Your task to perform on an android device: Add razer blade to the cart on target.com Image 0: 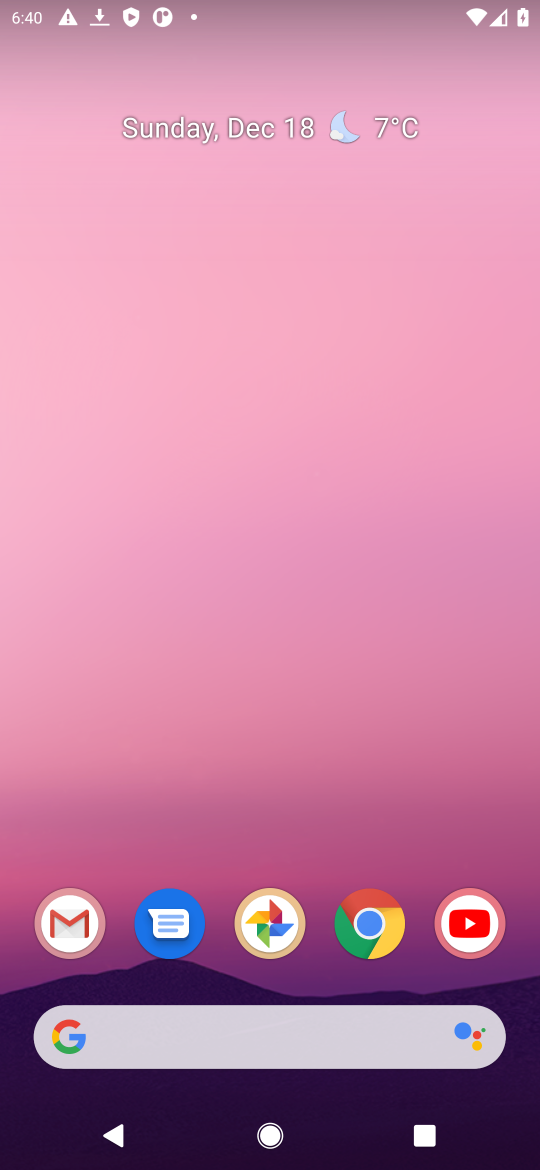
Step 0: press home button
Your task to perform on an android device: Add razer blade to the cart on target.com Image 1: 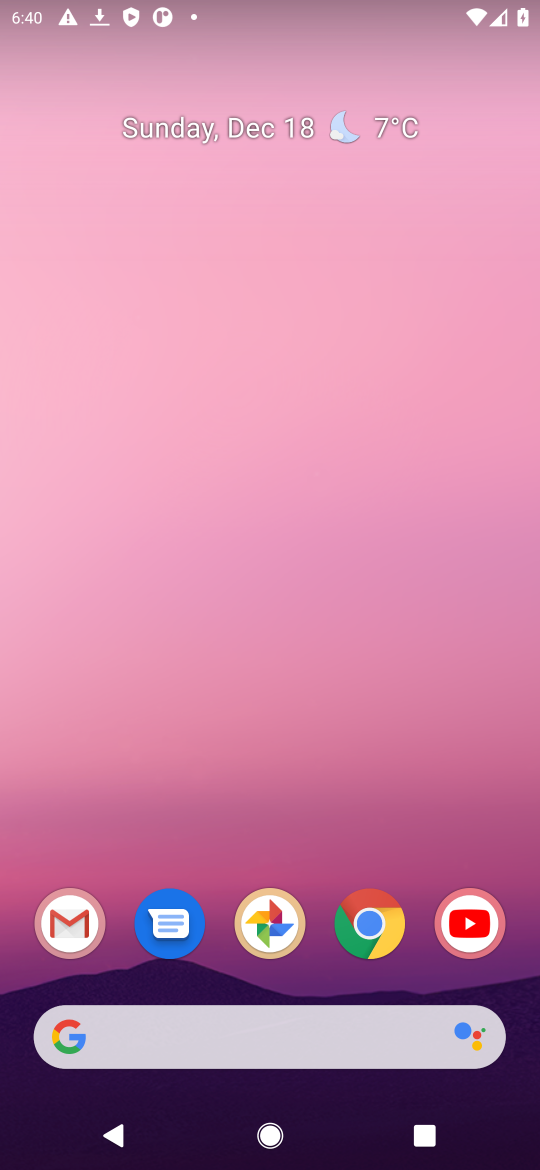
Step 1: click (112, 1028)
Your task to perform on an android device: Add razer blade to the cart on target.com Image 2: 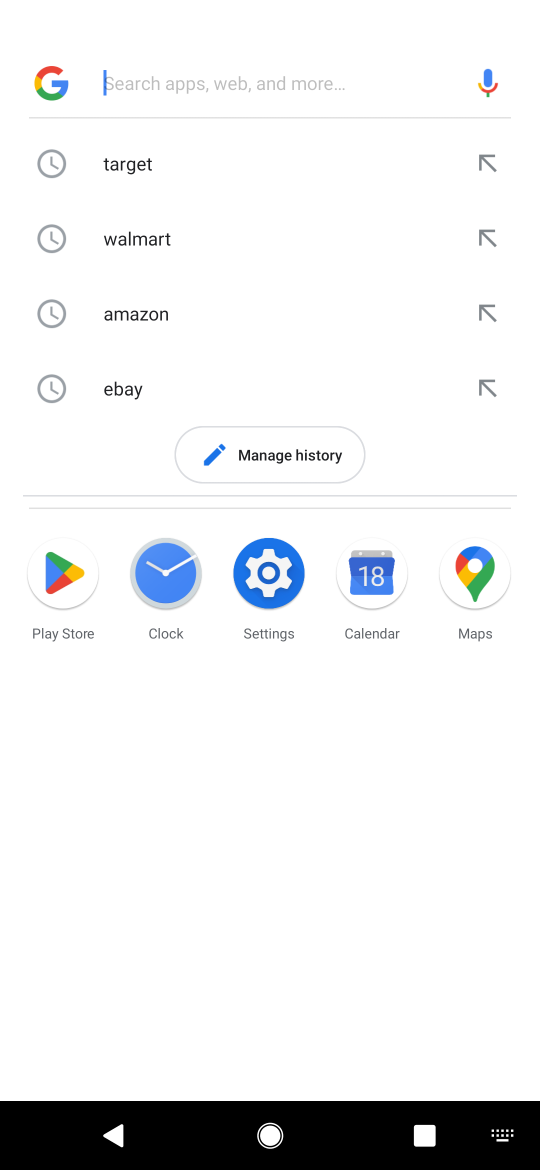
Step 2: press enter
Your task to perform on an android device: Add razer blade to the cart on target.com Image 3: 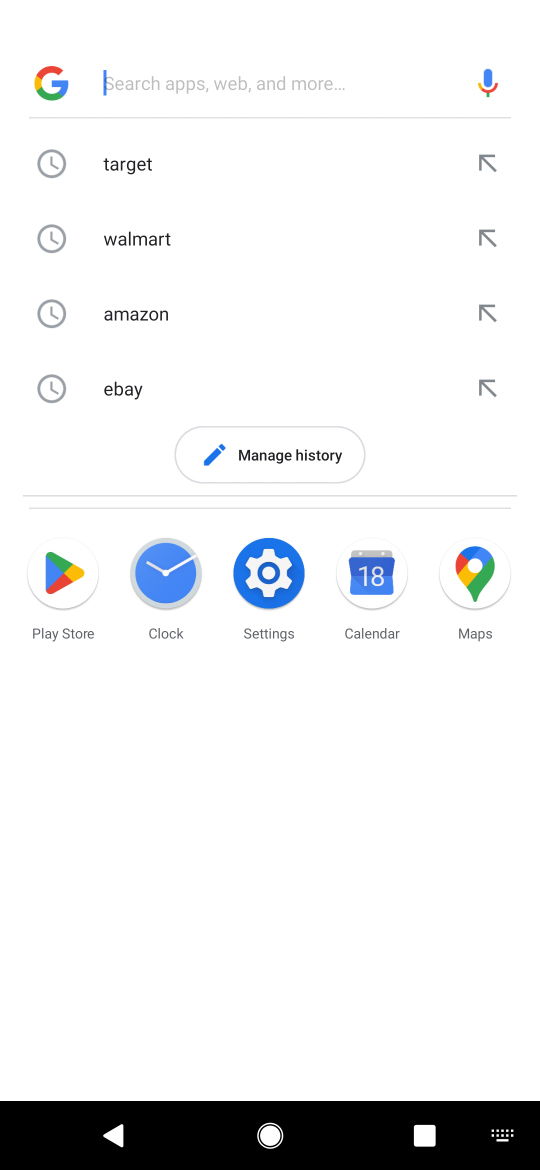
Step 3: type "target.com"
Your task to perform on an android device: Add razer blade to the cart on target.com Image 4: 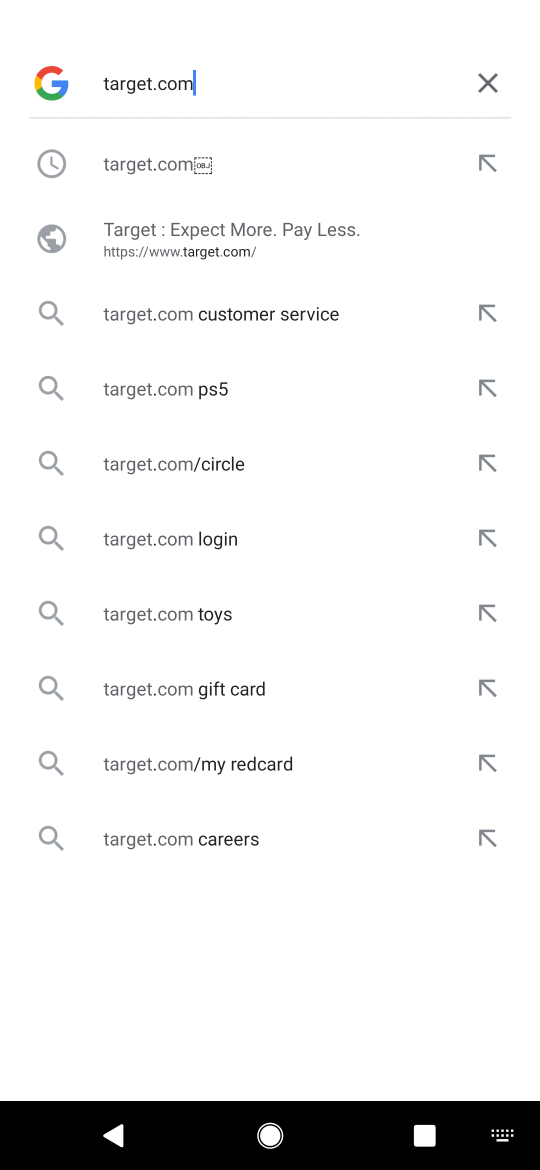
Step 4: press enter
Your task to perform on an android device: Add razer blade to the cart on target.com Image 5: 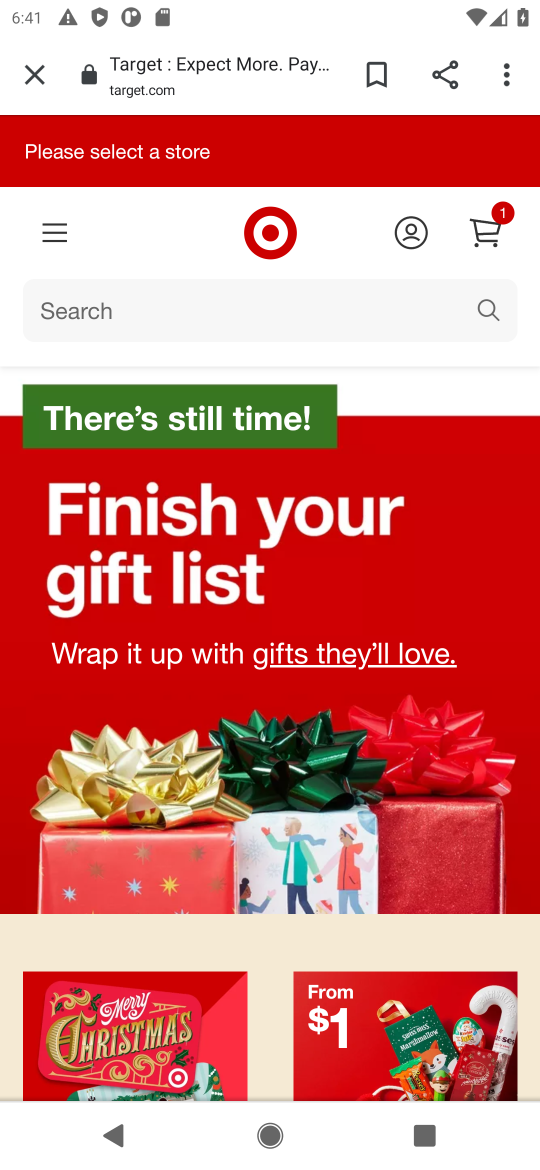
Step 5: click (125, 298)
Your task to perform on an android device: Add razer blade to the cart on target.com Image 6: 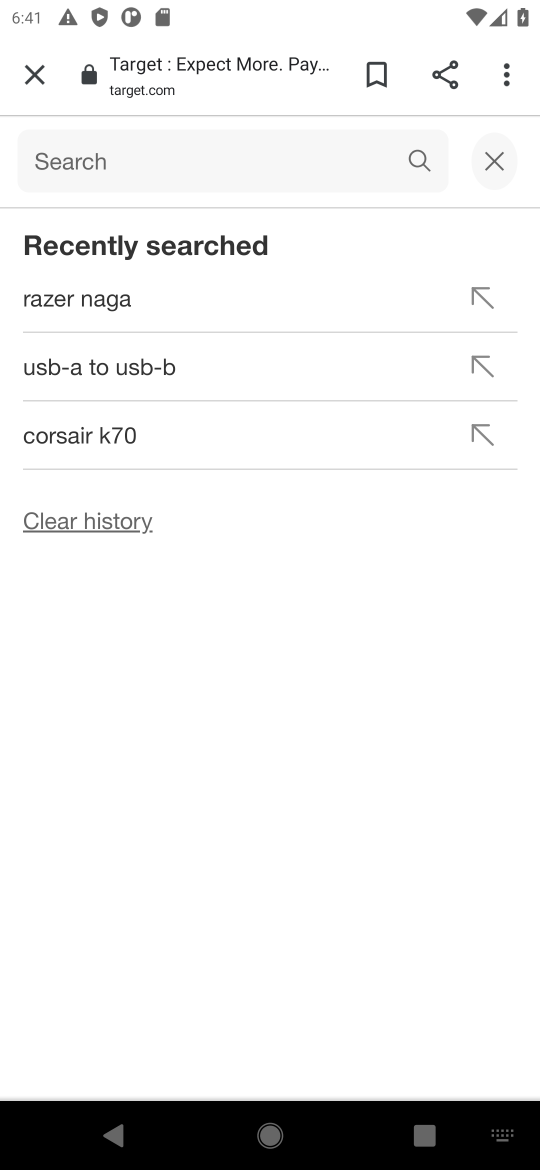
Step 6: type "razer blade"
Your task to perform on an android device: Add razer blade to the cart on target.com Image 7: 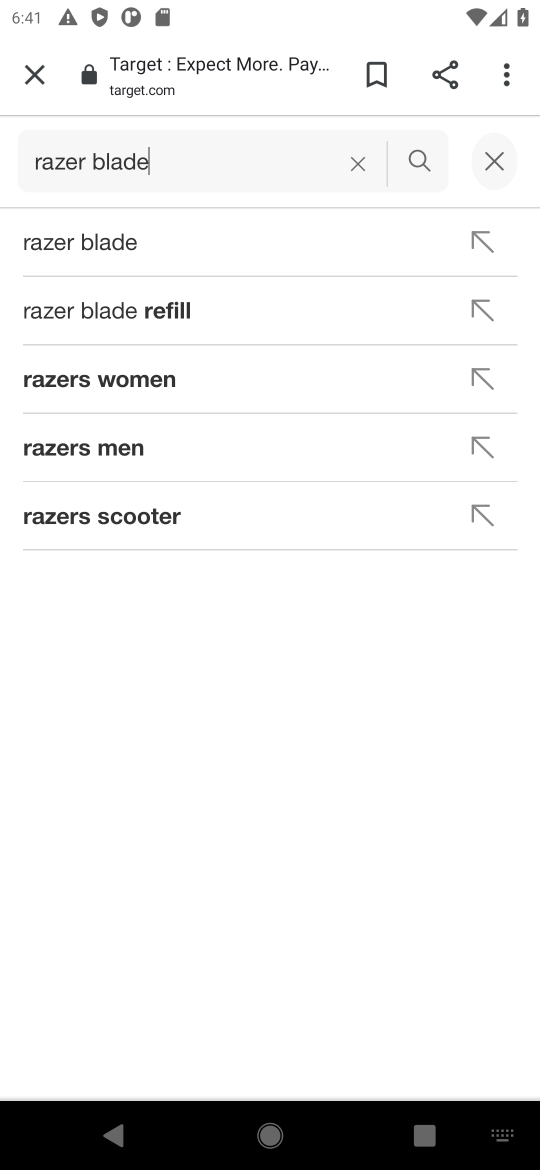
Step 7: press enter
Your task to perform on an android device: Add razer blade to the cart on target.com Image 8: 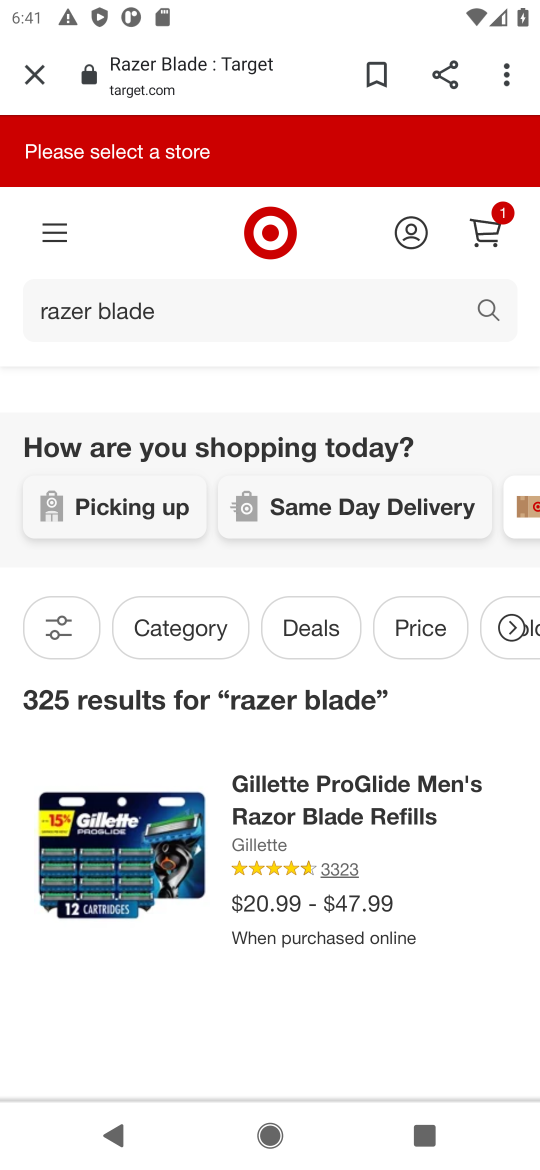
Step 8: drag from (294, 949) to (392, 628)
Your task to perform on an android device: Add razer blade to the cart on target.com Image 9: 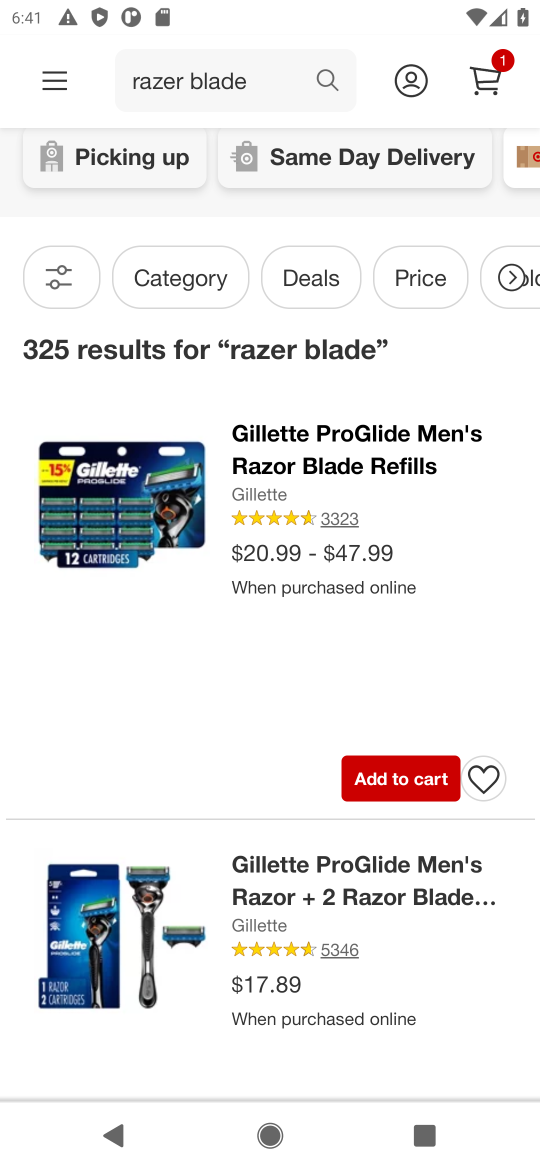
Step 9: click (368, 776)
Your task to perform on an android device: Add razer blade to the cart on target.com Image 10: 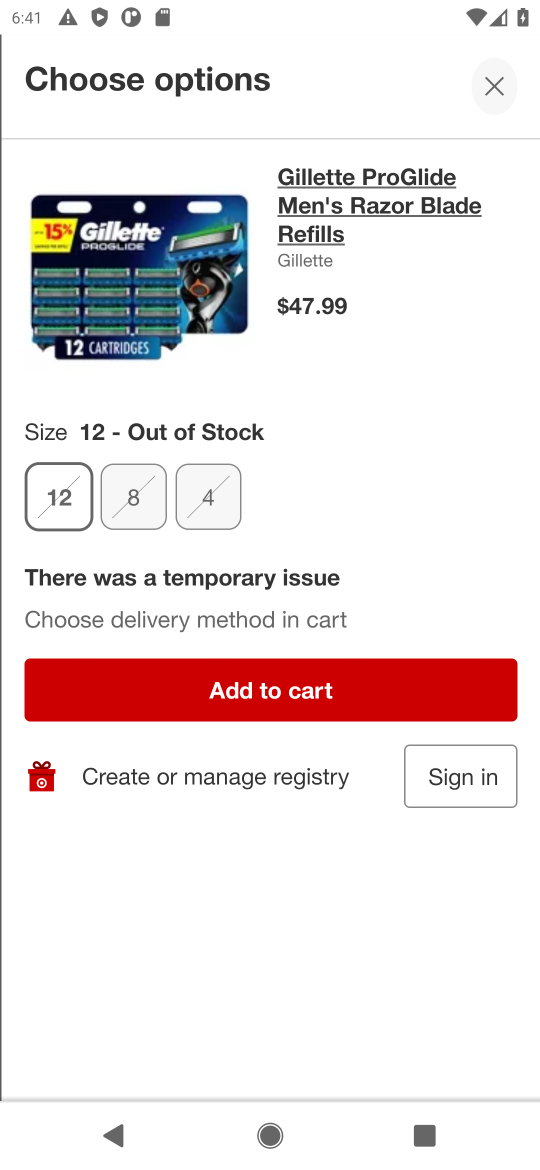
Step 10: click (254, 694)
Your task to perform on an android device: Add razer blade to the cart on target.com Image 11: 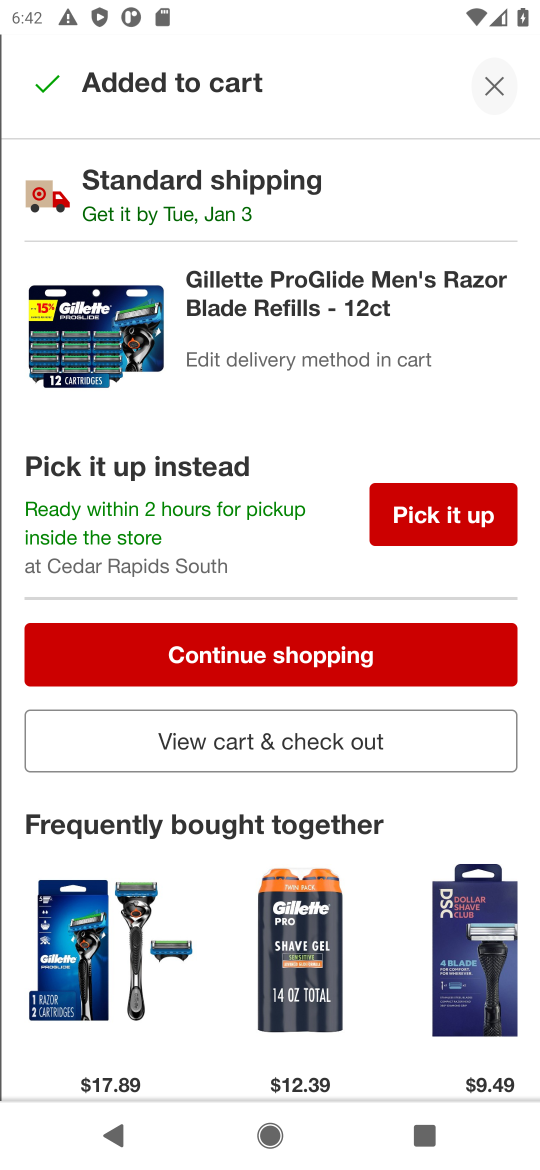
Step 11: task complete